Your task to perform on an android device: Open Chrome and go to settings Image 0: 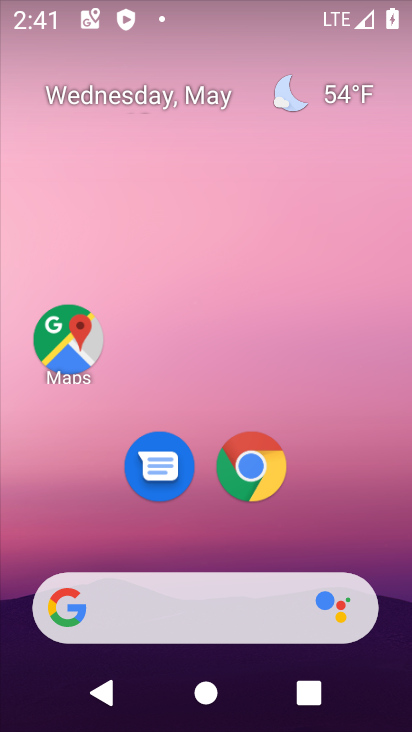
Step 0: click (250, 469)
Your task to perform on an android device: Open Chrome and go to settings Image 1: 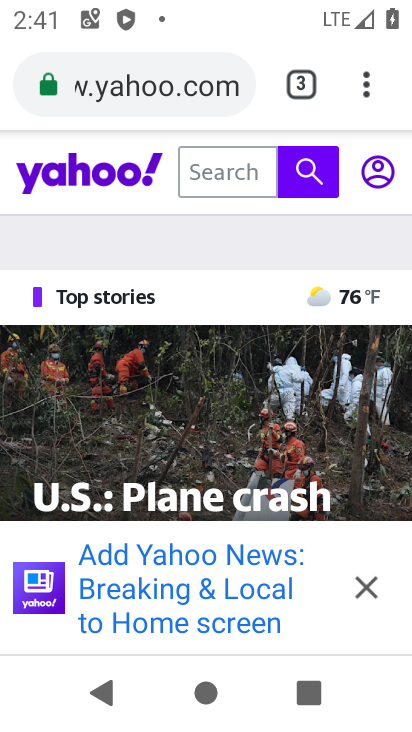
Step 1: click (377, 88)
Your task to perform on an android device: Open Chrome and go to settings Image 2: 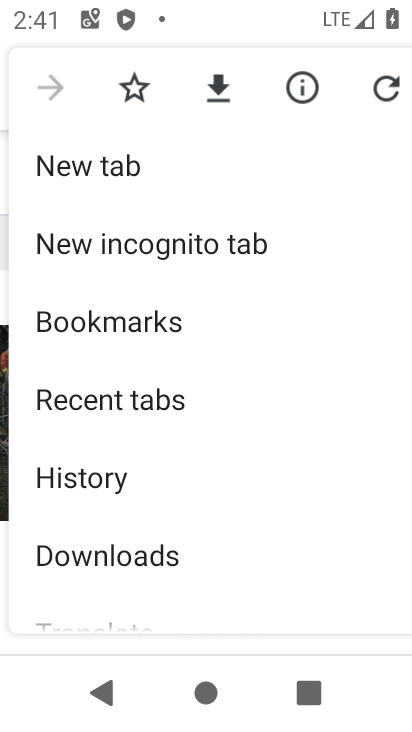
Step 2: drag from (356, 559) to (298, 162)
Your task to perform on an android device: Open Chrome and go to settings Image 3: 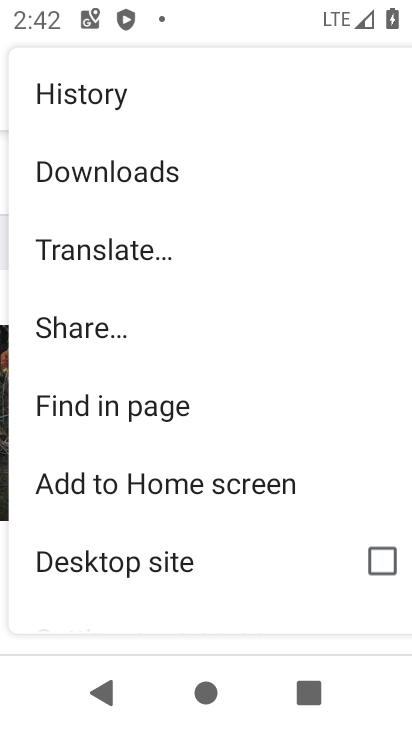
Step 3: drag from (241, 499) to (234, 157)
Your task to perform on an android device: Open Chrome and go to settings Image 4: 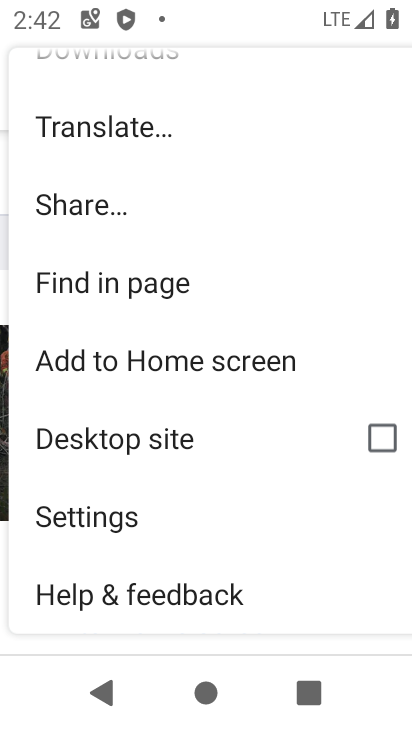
Step 4: click (144, 508)
Your task to perform on an android device: Open Chrome and go to settings Image 5: 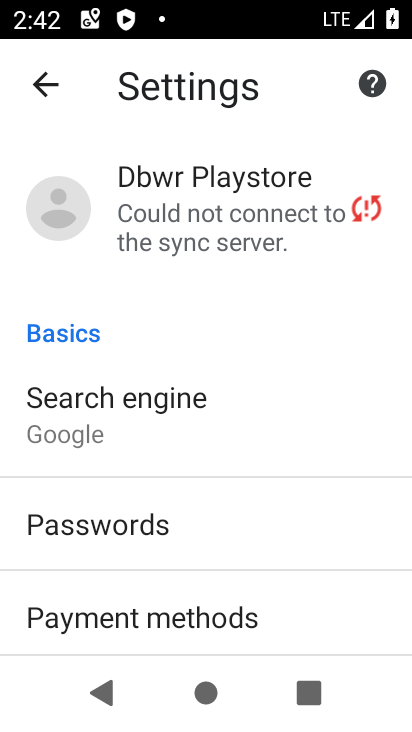
Step 5: task complete